Your task to perform on an android device: Open Amazon Image 0: 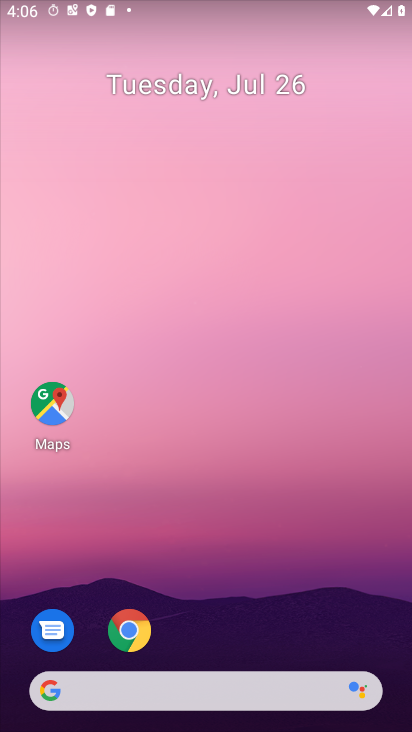
Step 0: click (130, 630)
Your task to perform on an android device: Open Amazon Image 1: 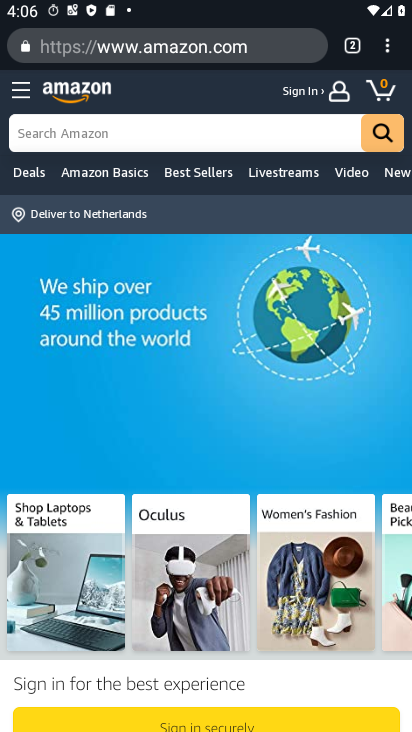
Step 1: task complete